Your task to perform on an android device: turn off picture-in-picture Image 0: 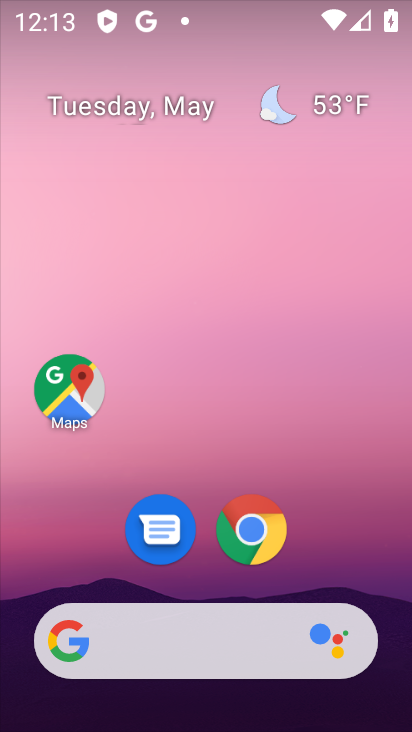
Step 0: drag from (211, 536) to (211, 98)
Your task to perform on an android device: turn off picture-in-picture Image 1: 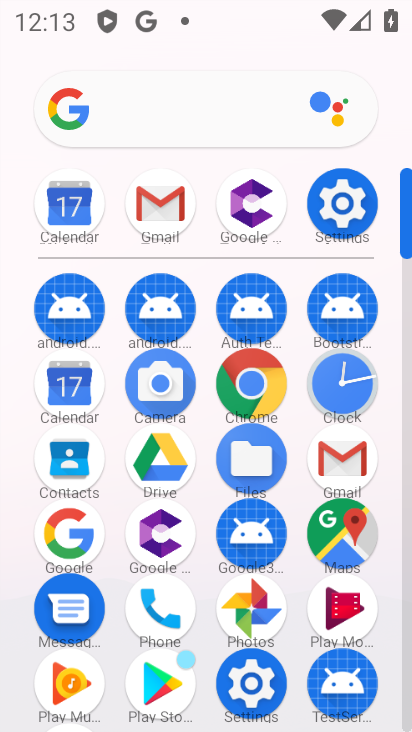
Step 1: click (342, 199)
Your task to perform on an android device: turn off picture-in-picture Image 2: 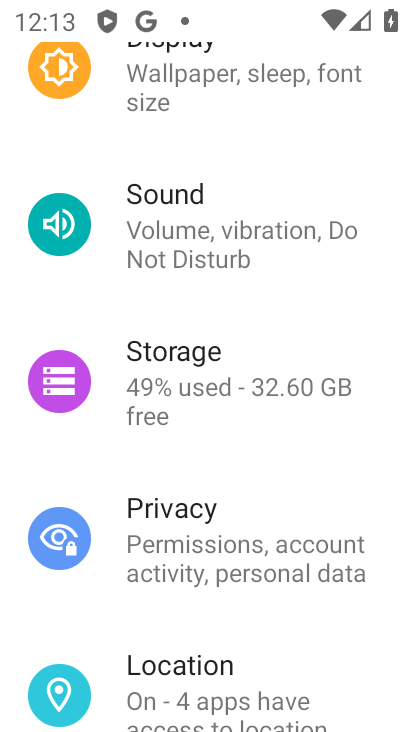
Step 2: drag from (186, 182) to (182, 565)
Your task to perform on an android device: turn off picture-in-picture Image 3: 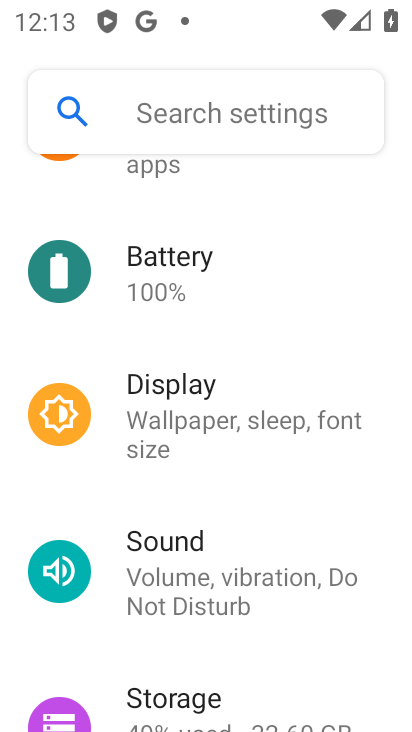
Step 3: drag from (205, 227) to (205, 693)
Your task to perform on an android device: turn off picture-in-picture Image 4: 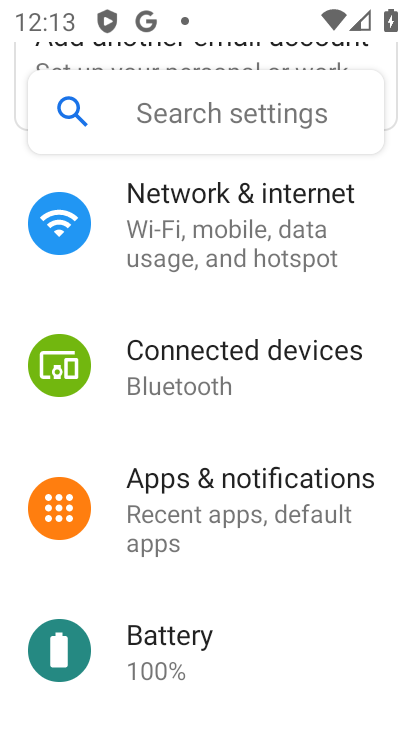
Step 4: drag from (186, 221) to (185, 388)
Your task to perform on an android device: turn off picture-in-picture Image 5: 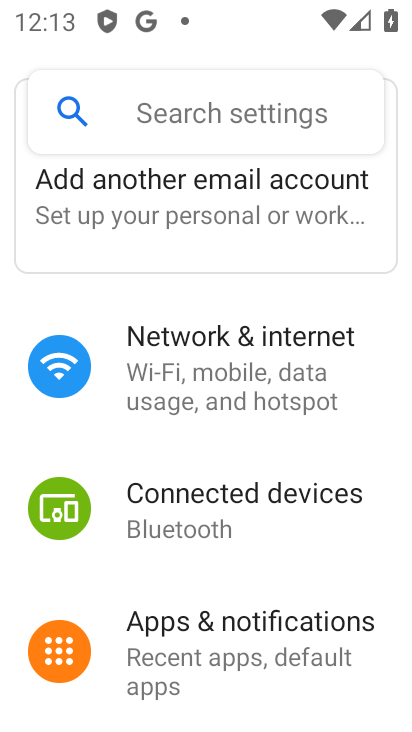
Step 5: click (201, 645)
Your task to perform on an android device: turn off picture-in-picture Image 6: 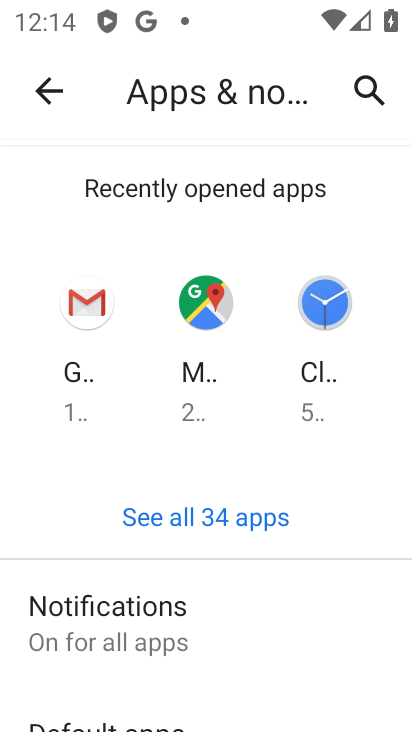
Step 6: drag from (120, 666) to (138, 273)
Your task to perform on an android device: turn off picture-in-picture Image 7: 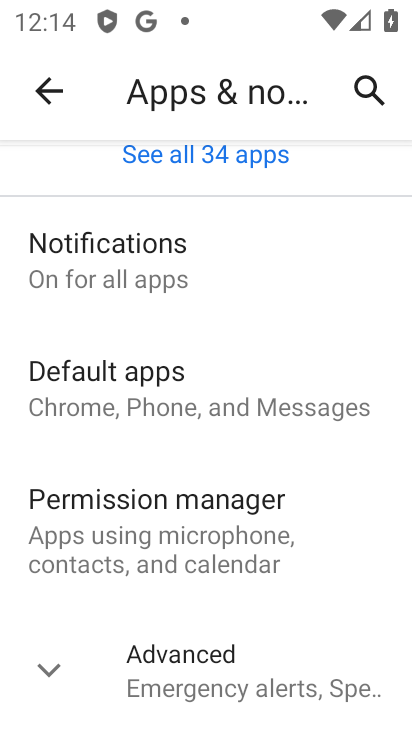
Step 7: drag from (154, 596) to (158, 245)
Your task to perform on an android device: turn off picture-in-picture Image 8: 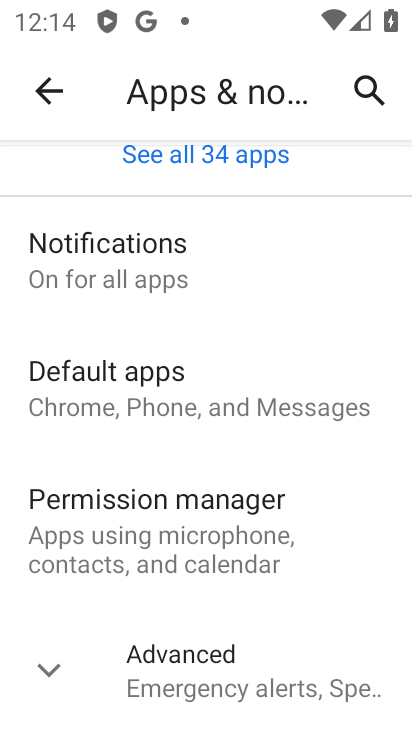
Step 8: click (178, 651)
Your task to perform on an android device: turn off picture-in-picture Image 9: 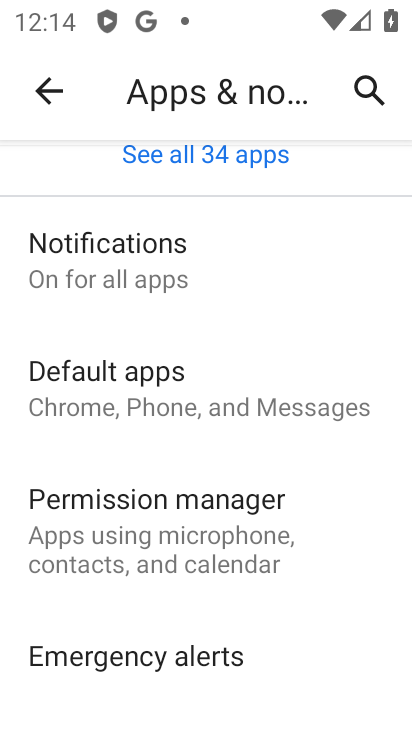
Step 9: drag from (180, 640) to (183, 214)
Your task to perform on an android device: turn off picture-in-picture Image 10: 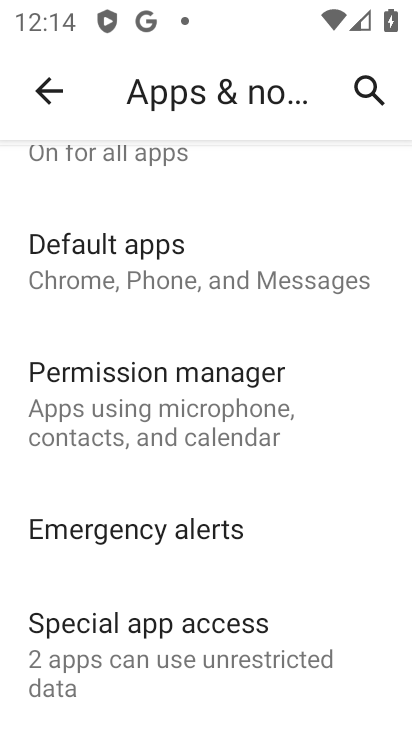
Step 10: click (152, 627)
Your task to perform on an android device: turn off picture-in-picture Image 11: 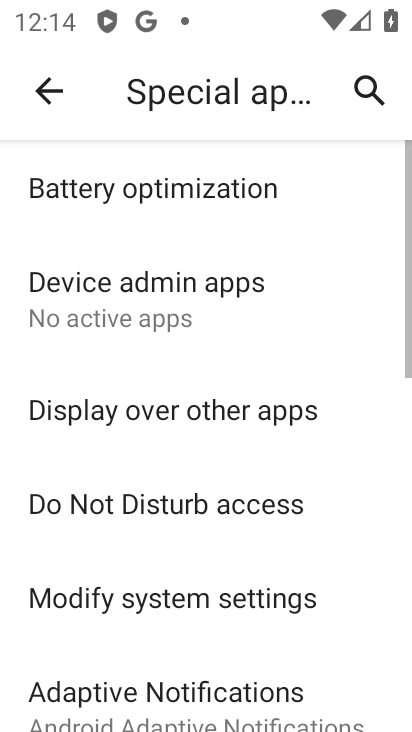
Step 11: drag from (165, 680) to (179, 259)
Your task to perform on an android device: turn off picture-in-picture Image 12: 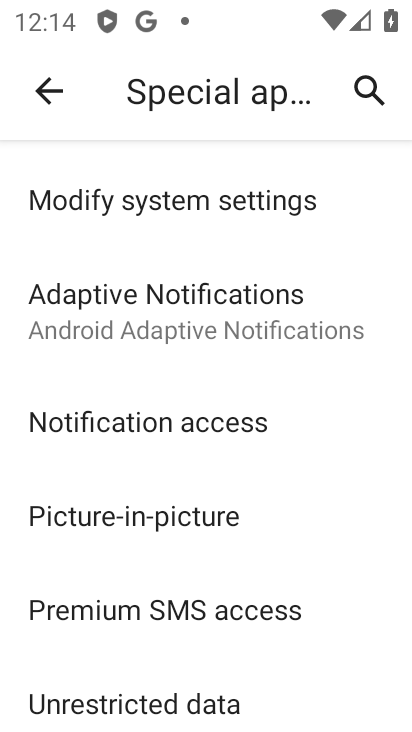
Step 12: click (152, 520)
Your task to perform on an android device: turn off picture-in-picture Image 13: 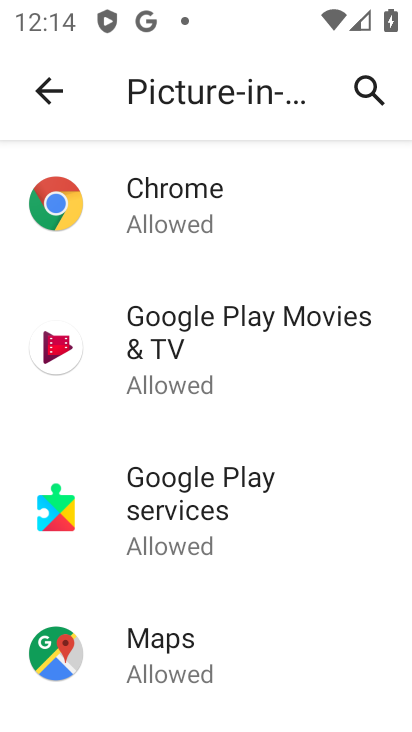
Step 13: drag from (165, 656) to (188, 260)
Your task to perform on an android device: turn off picture-in-picture Image 14: 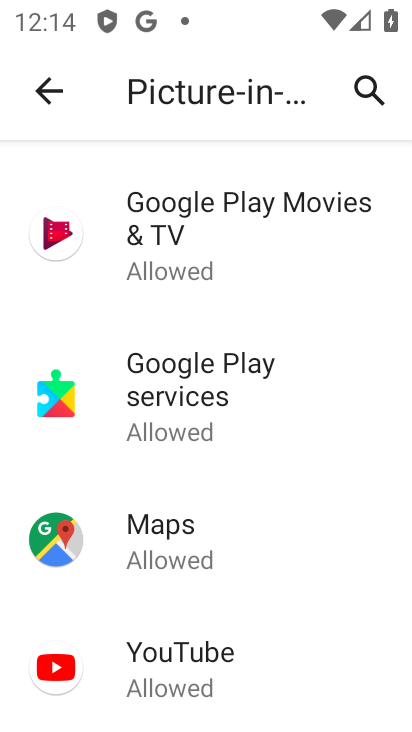
Step 14: click (175, 654)
Your task to perform on an android device: turn off picture-in-picture Image 15: 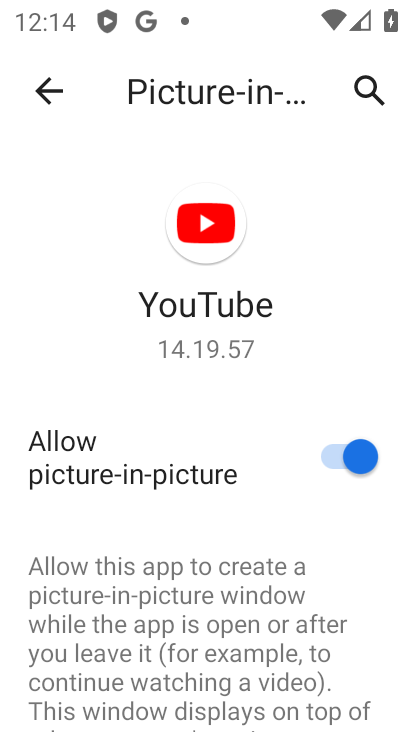
Step 15: click (337, 439)
Your task to perform on an android device: turn off picture-in-picture Image 16: 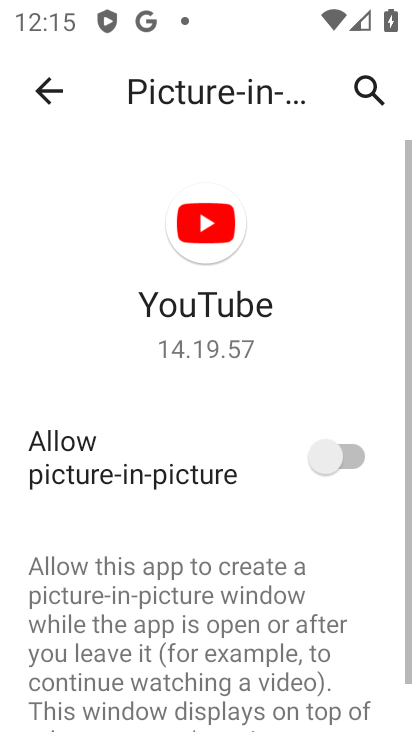
Step 16: task complete